Your task to perform on an android device: Go to eBay Image 0: 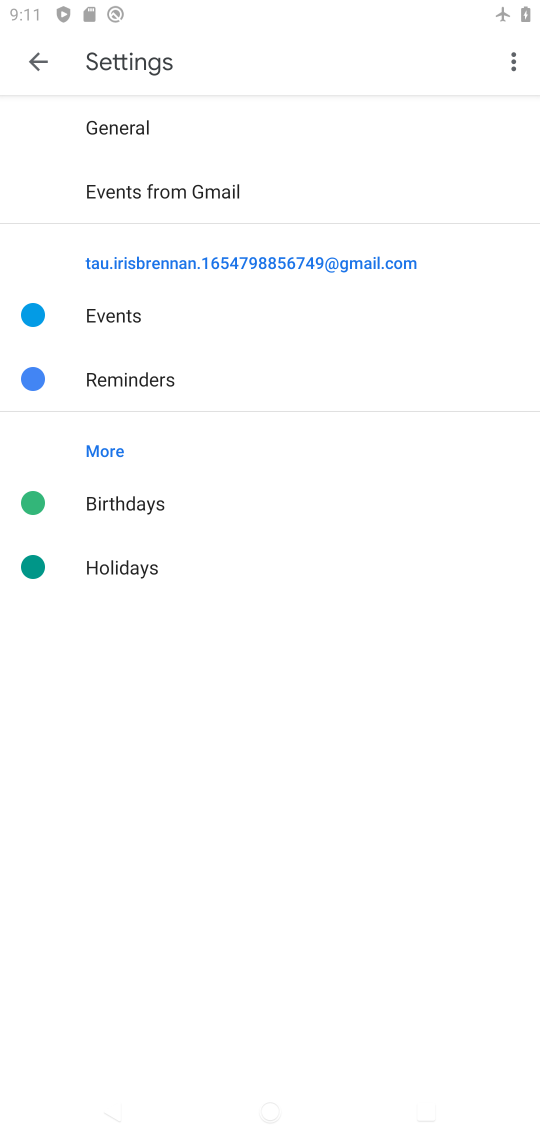
Step 0: press home button
Your task to perform on an android device: Go to eBay Image 1: 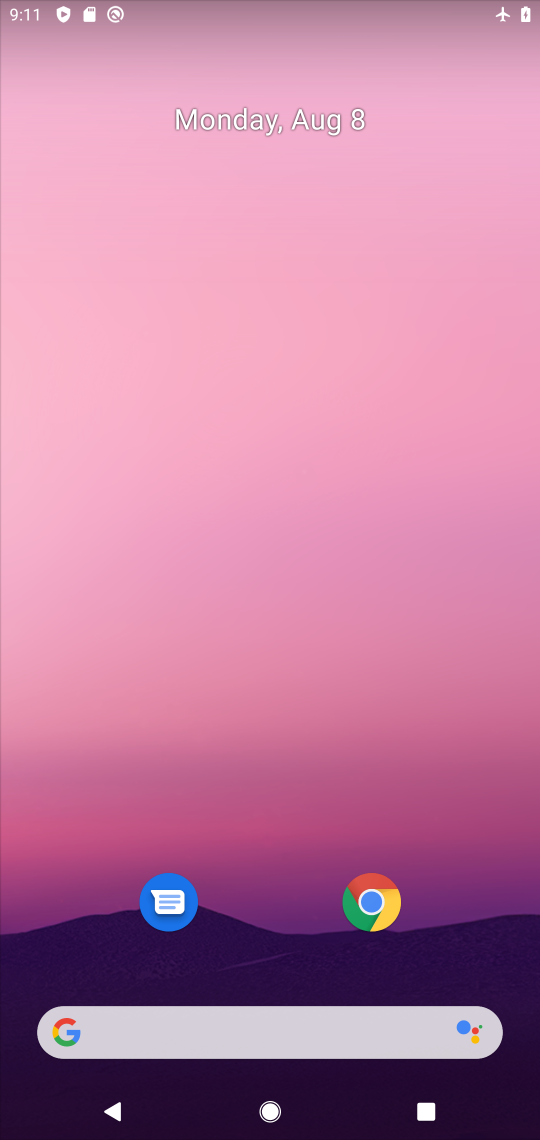
Step 1: drag from (323, 969) to (66, 406)
Your task to perform on an android device: Go to eBay Image 2: 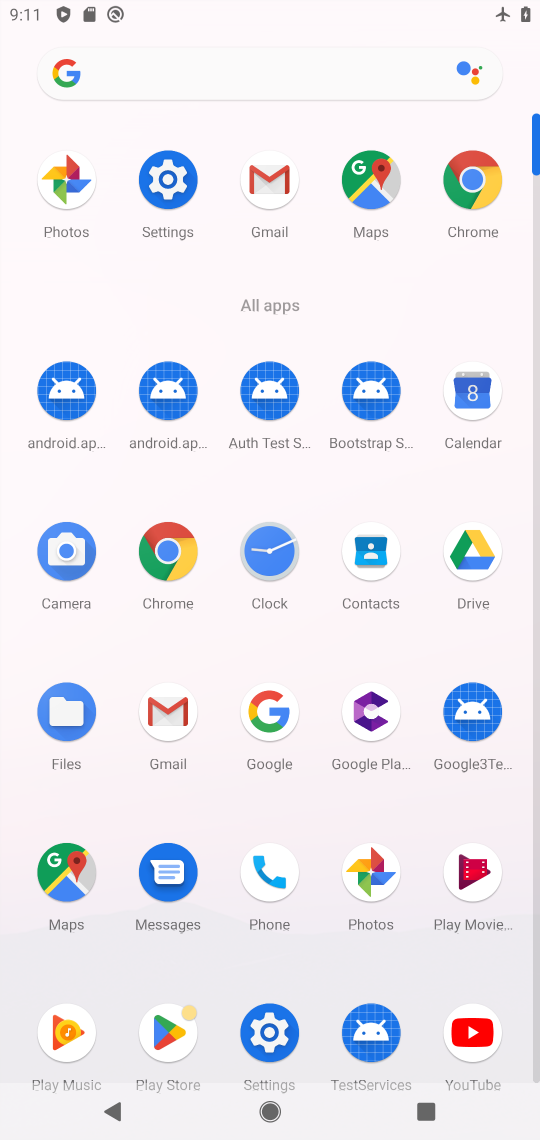
Step 2: click (186, 616)
Your task to perform on an android device: Go to eBay Image 3: 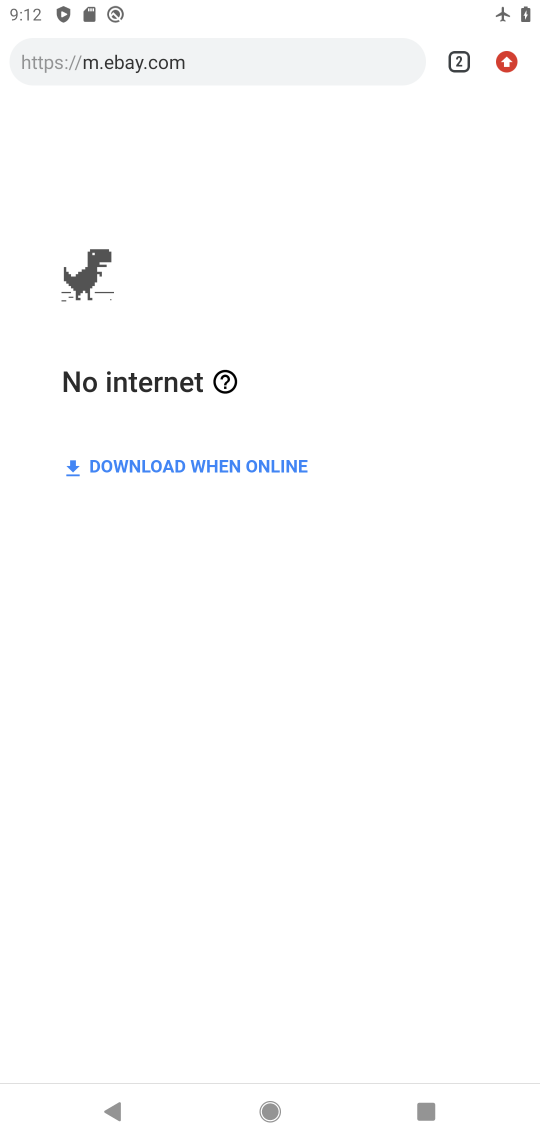
Step 3: click (458, 81)
Your task to perform on an android device: Go to eBay Image 4: 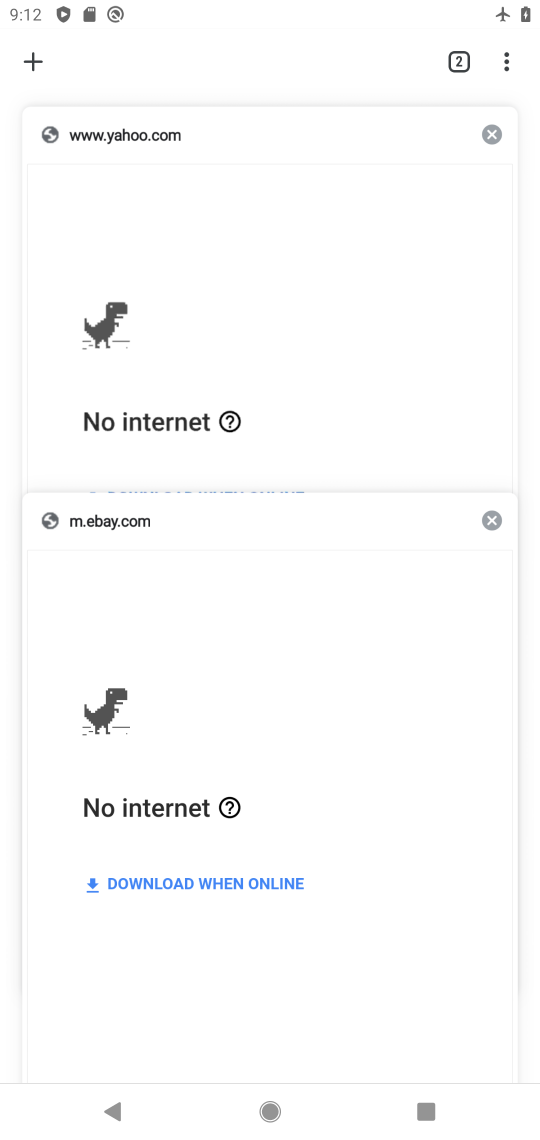
Step 4: click (30, 49)
Your task to perform on an android device: Go to eBay Image 5: 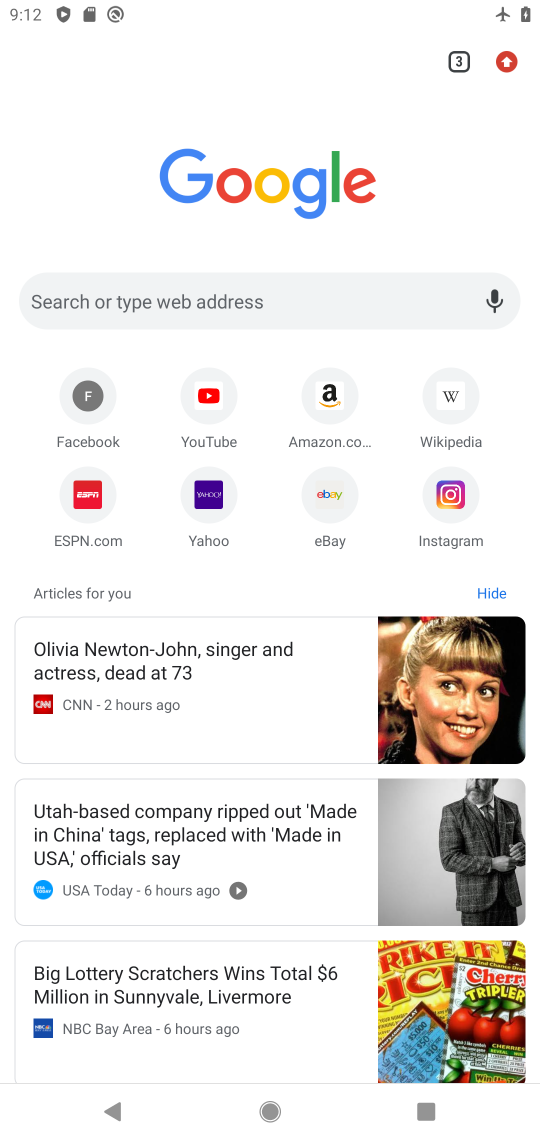
Step 5: click (322, 528)
Your task to perform on an android device: Go to eBay Image 6: 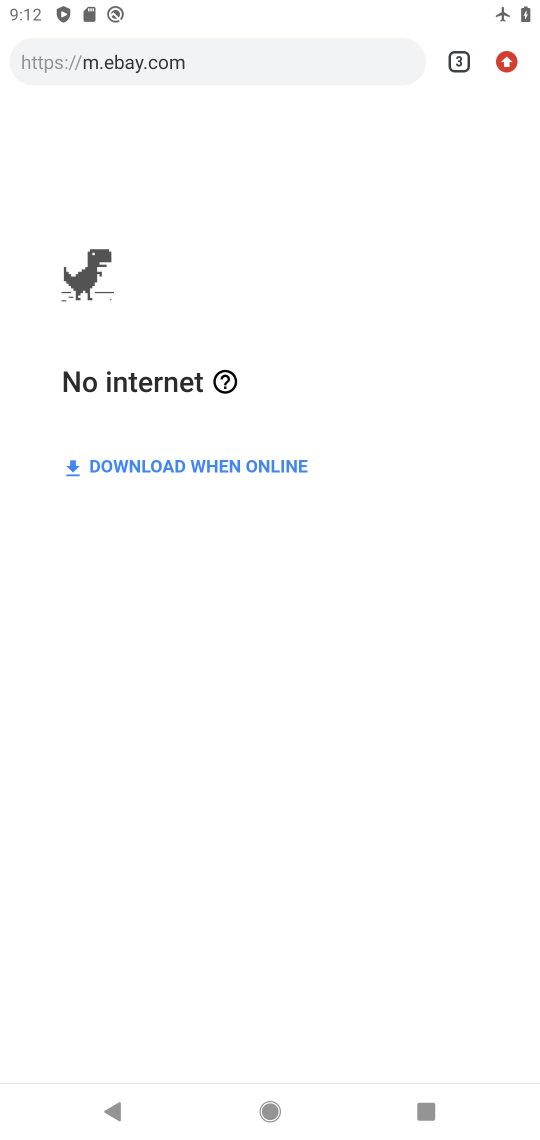
Step 6: task complete